Your task to perform on an android device: change notifications settings Image 0: 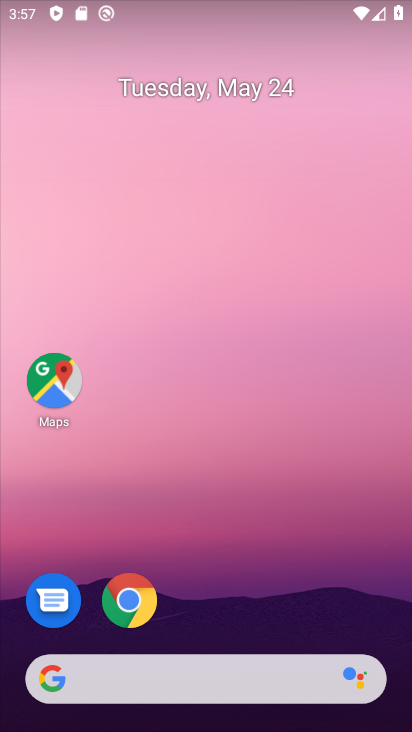
Step 0: drag from (308, 550) to (364, 59)
Your task to perform on an android device: change notifications settings Image 1: 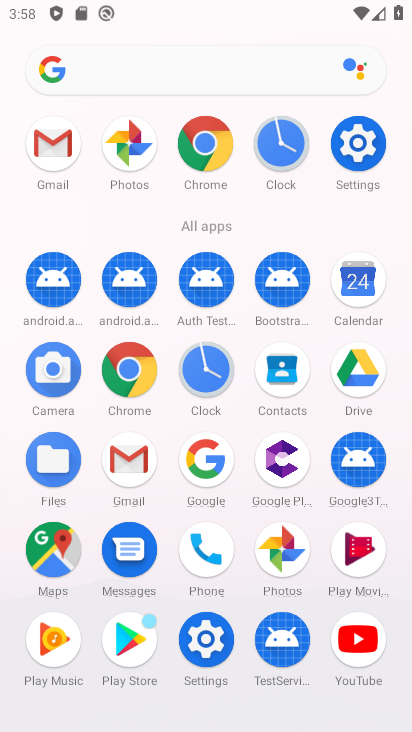
Step 1: click (361, 127)
Your task to perform on an android device: change notifications settings Image 2: 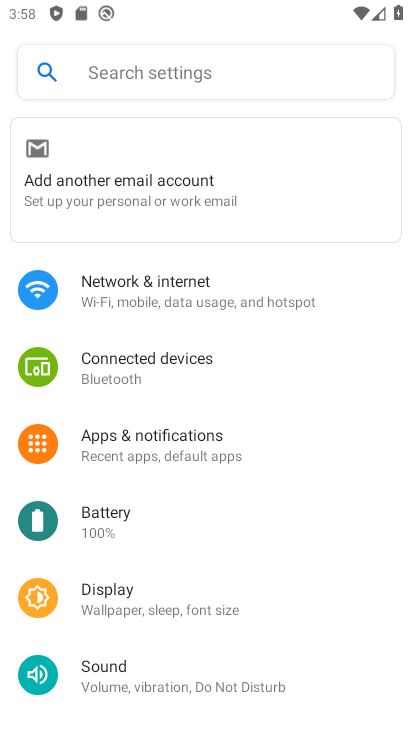
Step 2: click (197, 452)
Your task to perform on an android device: change notifications settings Image 3: 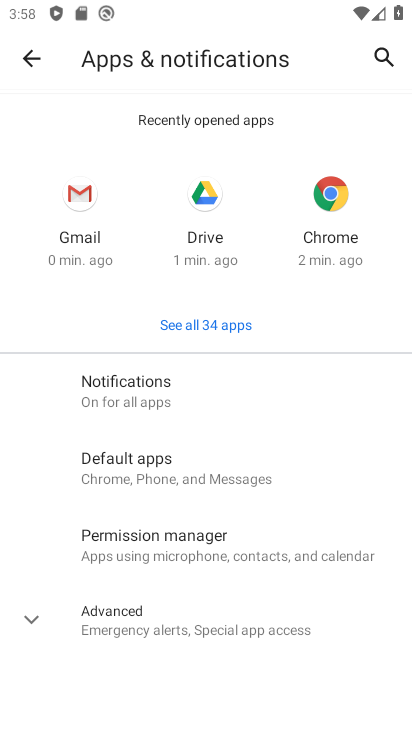
Step 3: click (112, 388)
Your task to perform on an android device: change notifications settings Image 4: 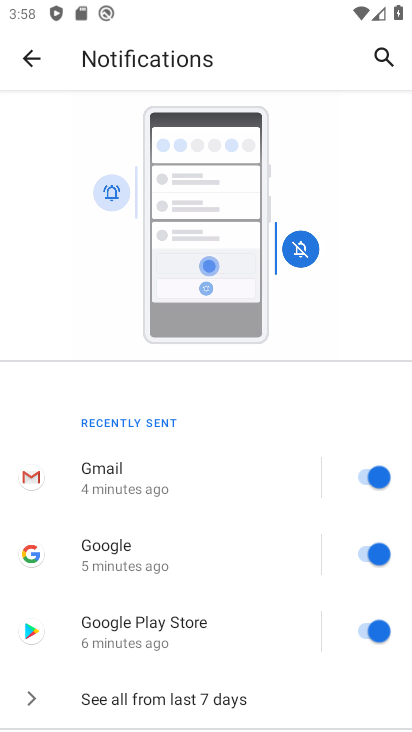
Step 4: click (361, 472)
Your task to perform on an android device: change notifications settings Image 5: 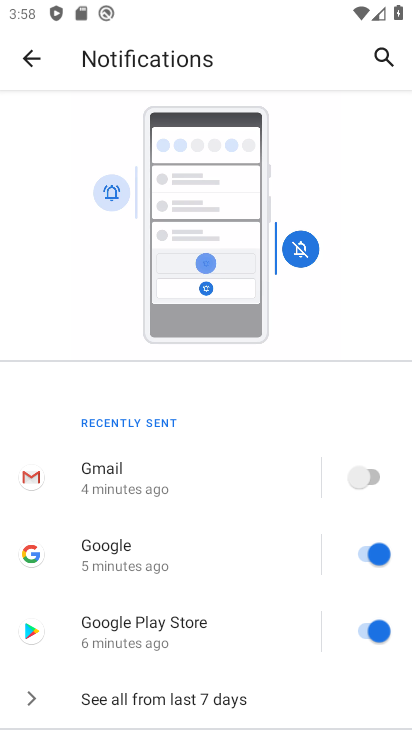
Step 5: click (365, 553)
Your task to perform on an android device: change notifications settings Image 6: 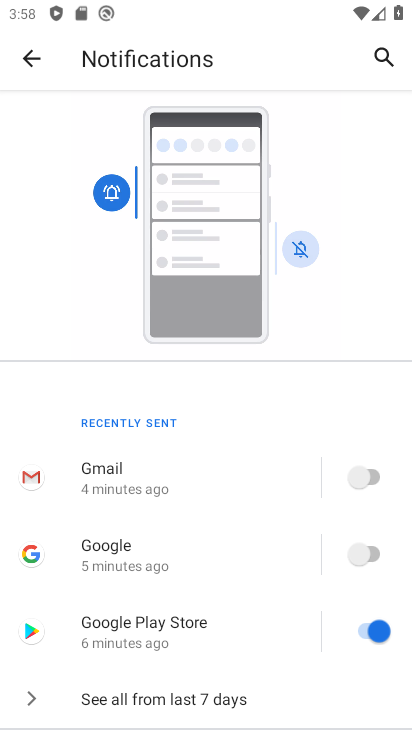
Step 6: click (370, 624)
Your task to perform on an android device: change notifications settings Image 7: 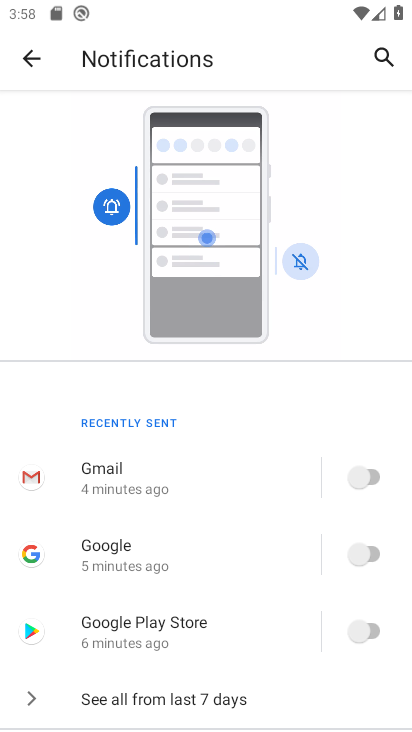
Step 7: task complete